Your task to perform on an android device: change the clock style Image 0: 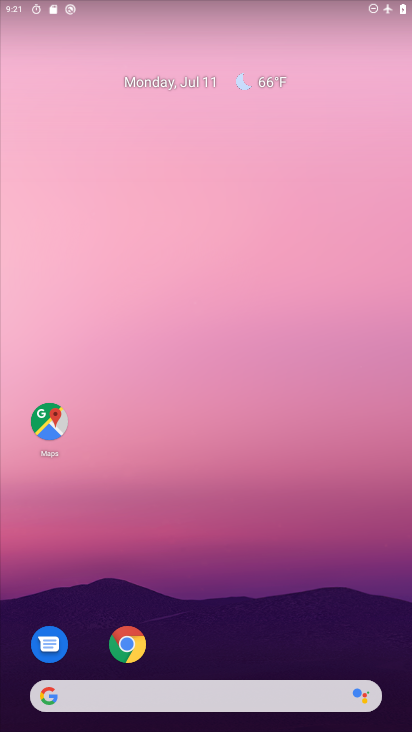
Step 0: drag from (318, 630) to (276, 140)
Your task to perform on an android device: change the clock style Image 1: 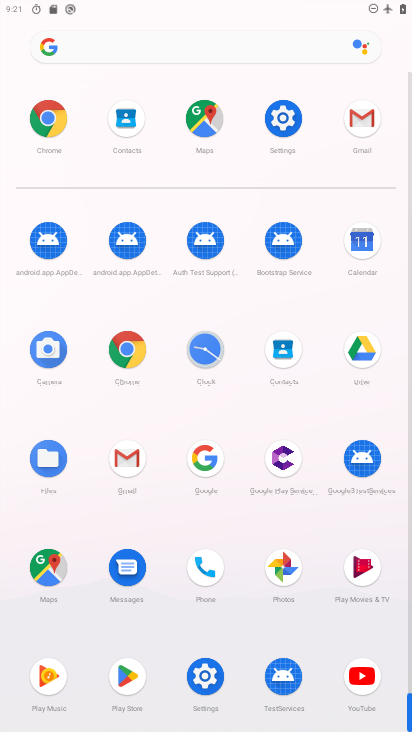
Step 1: click (206, 349)
Your task to perform on an android device: change the clock style Image 2: 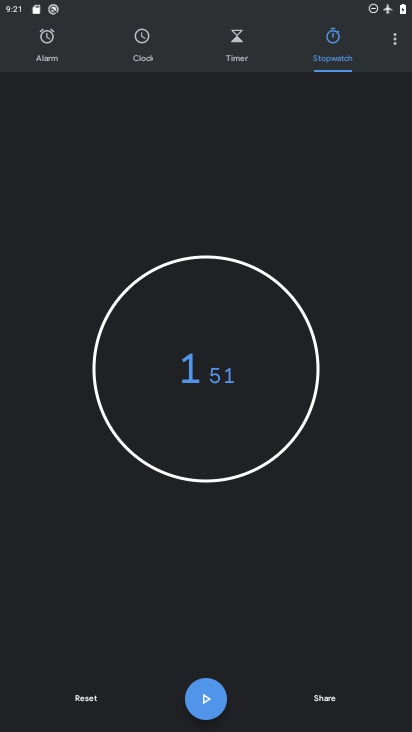
Step 2: click (394, 43)
Your task to perform on an android device: change the clock style Image 3: 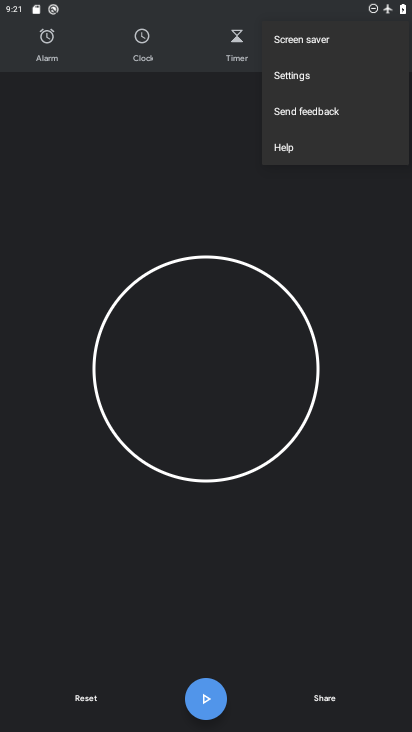
Step 3: click (286, 79)
Your task to perform on an android device: change the clock style Image 4: 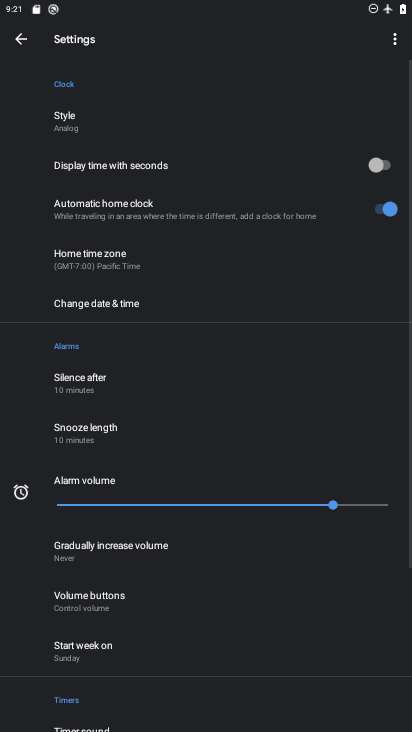
Step 4: click (78, 128)
Your task to perform on an android device: change the clock style Image 5: 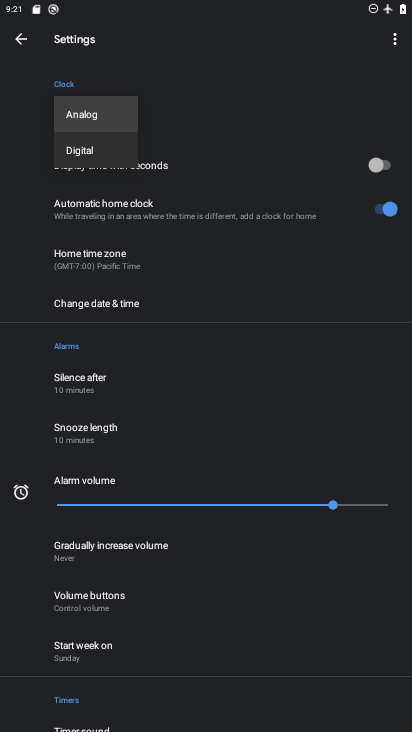
Step 5: click (103, 158)
Your task to perform on an android device: change the clock style Image 6: 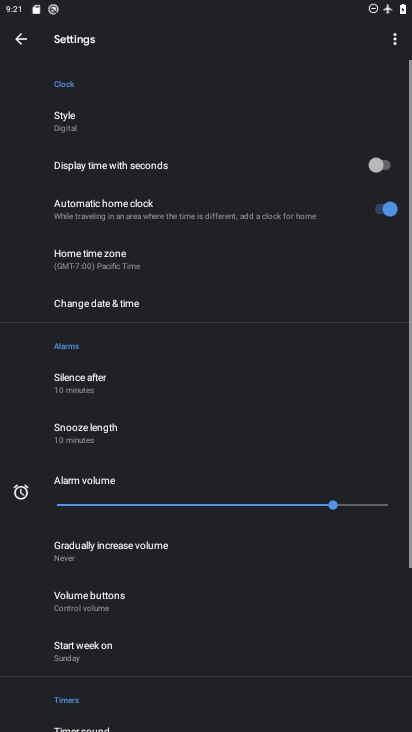
Step 6: task complete